Your task to perform on an android device: turn off javascript in the chrome app Image 0: 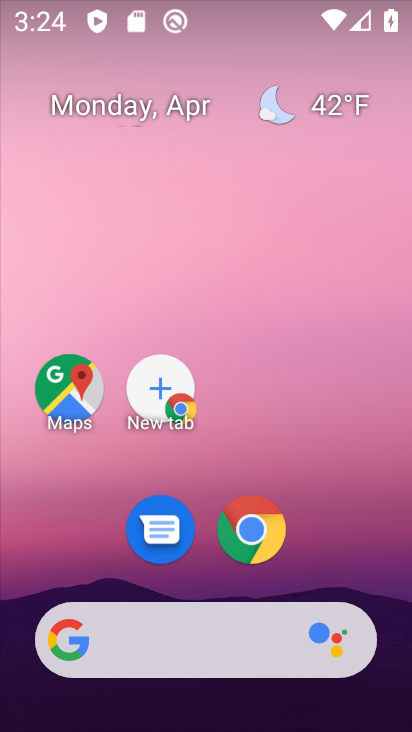
Step 0: click (264, 518)
Your task to perform on an android device: turn off javascript in the chrome app Image 1: 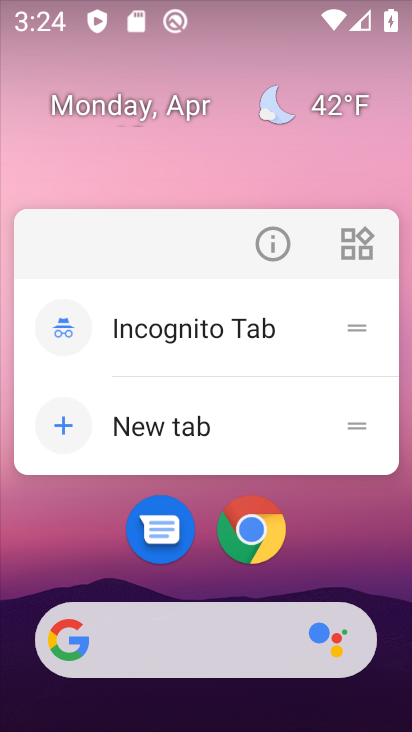
Step 1: click (261, 518)
Your task to perform on an android device: turn off javascript in the chrome app Image 2: 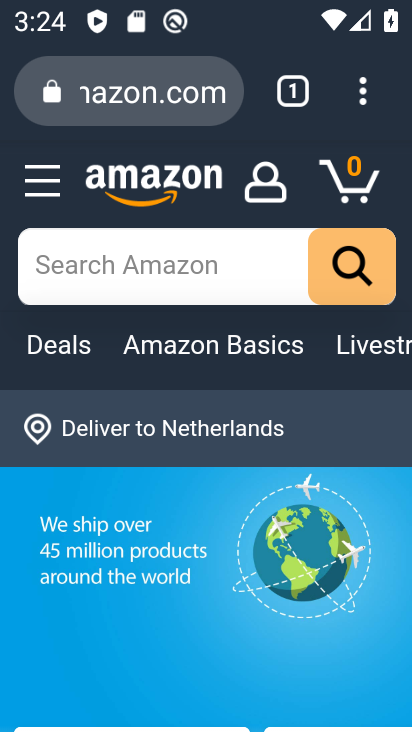
Step 2: click (361, 87)
Your task to perform on an android device: turn off javascript in the chrome app Image 3: 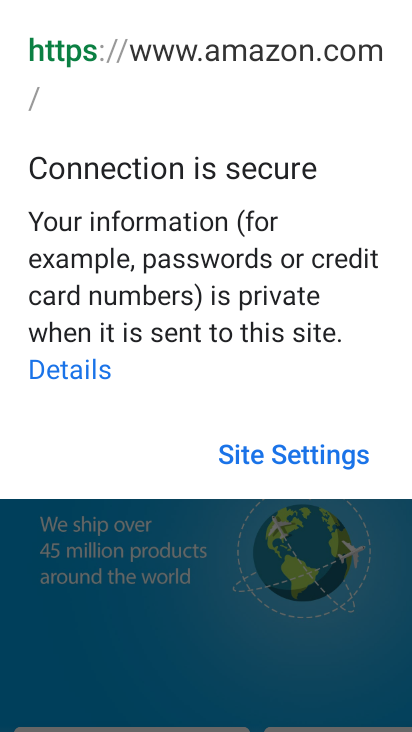
Step 3: click (153, 546)
Your task to perform on an android device: turn off javascript in the chrome app Image 4: 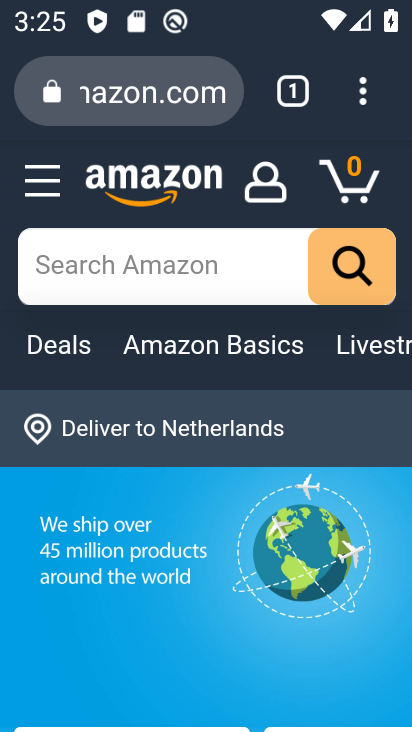
Step 4: click (353, 79)
Your task to perform on an android device: turn off javascript in the chrome app Image 5: 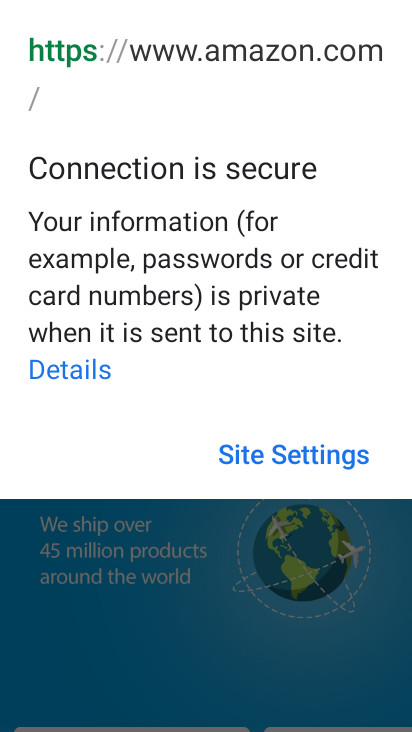
Step 5: click (162, 567)
Your task to perform on an android device: turn off javascript in the chrome app Image 6: 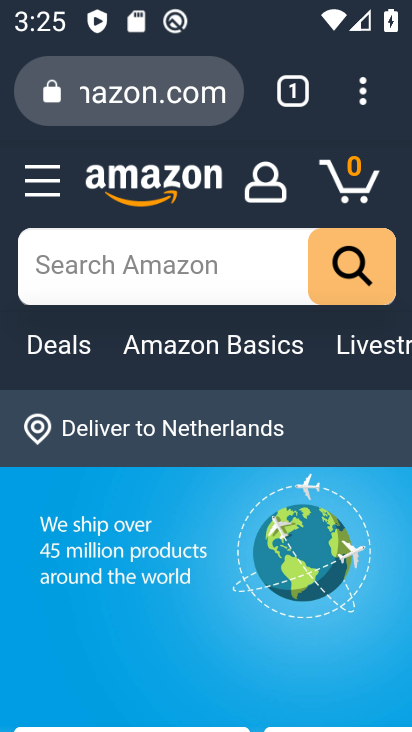
Step 6: click (366, 83)
Your task to perform on an android device: turn off javascript in the chrome app Image 7: 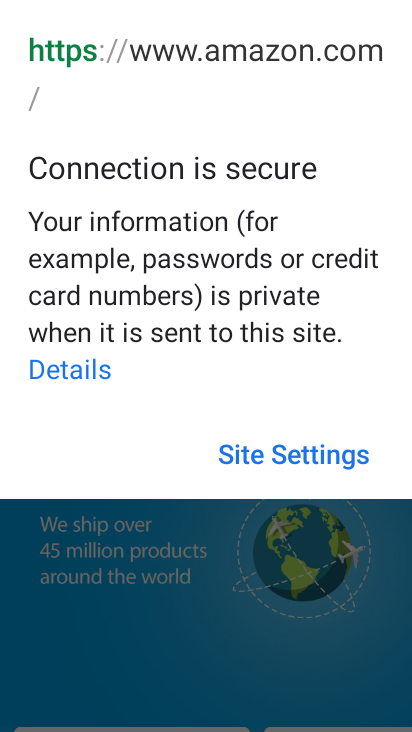
Step 7: click (188, 559)
Your task to perform on an android device: turn off javascript in the chrome app Image 8: 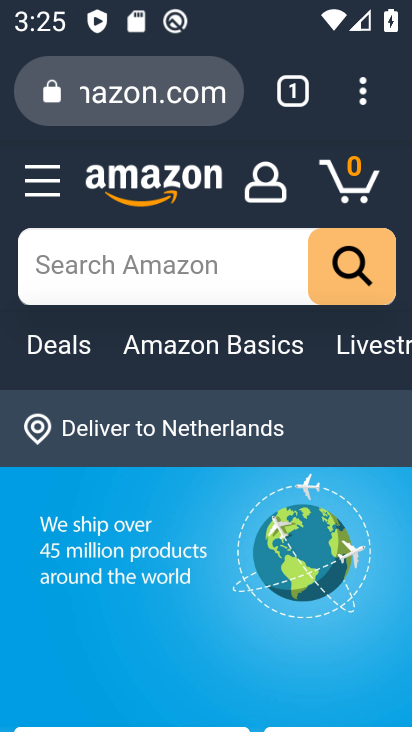
Step 8: drag from (362, 89) to (137, 544)
Your task to perform on an android device: turn off javascript in the chrome app Image 9: 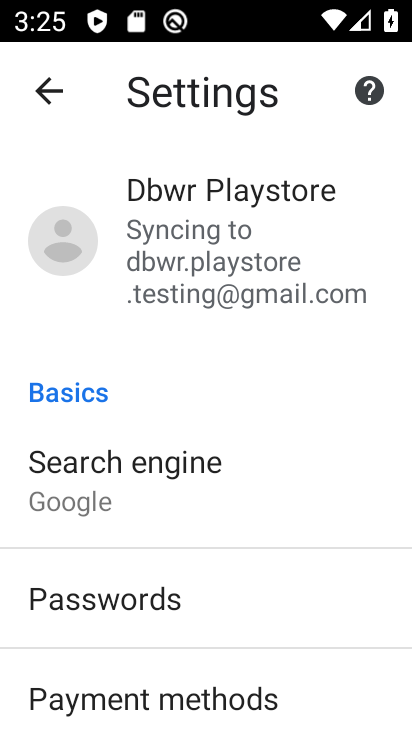
Step 9: drag from (110, 563) to (235, 140)
Your task to perform on an android device: turn off javascript in the chrome app Image 10: 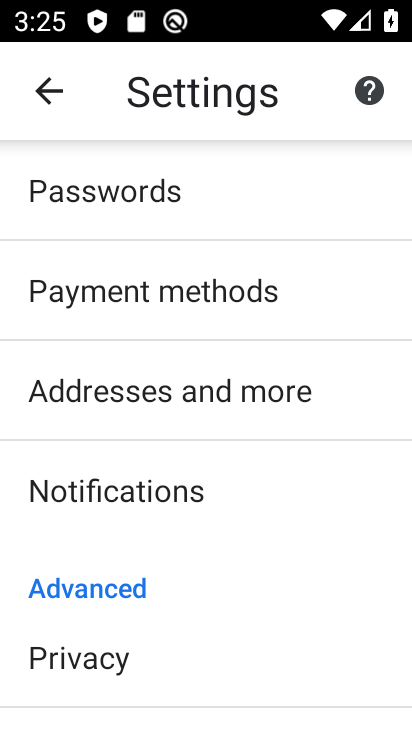
Step 10: drag from (149, 653) to (295, 162)
Your task to perform on an android device: turn off javascript in the chrome app Image 11: 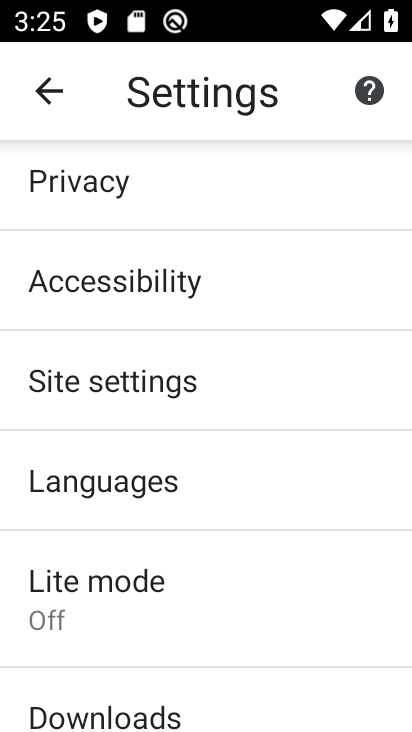
Step 11: click (102, 387)
Your task to perform on an android device: turn off javascript in the chrome app Image 12: 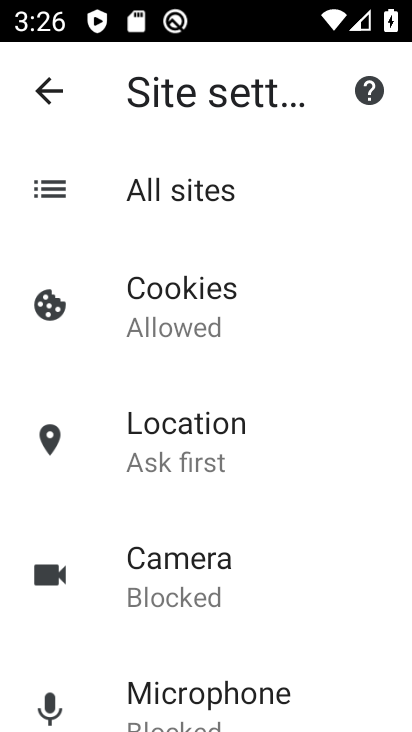
Step 12: drag from (187, 604) to (315, 224)
Your task to perform on an android device: turn off javascript in the chrome app Image 13: 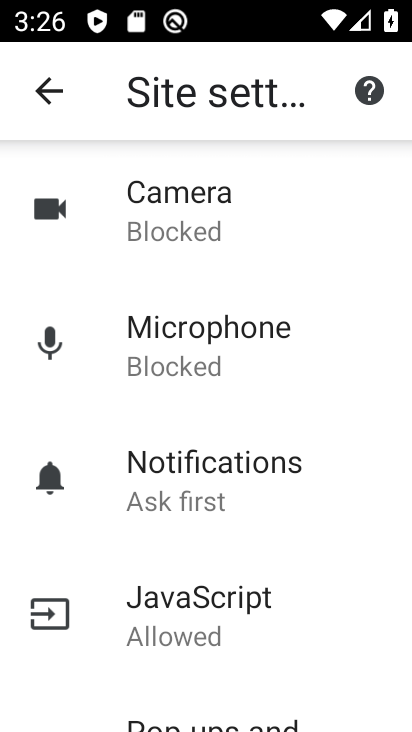
Step 13: click (200, 594)
Your task to perform on an android device: turn off javascript in the chrome app Image 14: 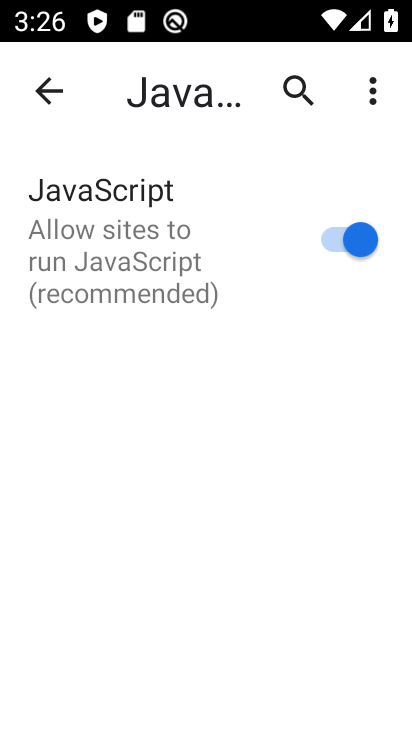
Step 14: click (345, 237)
Your task to perform on an android device: turn off javascript in the chrome app Image 15: 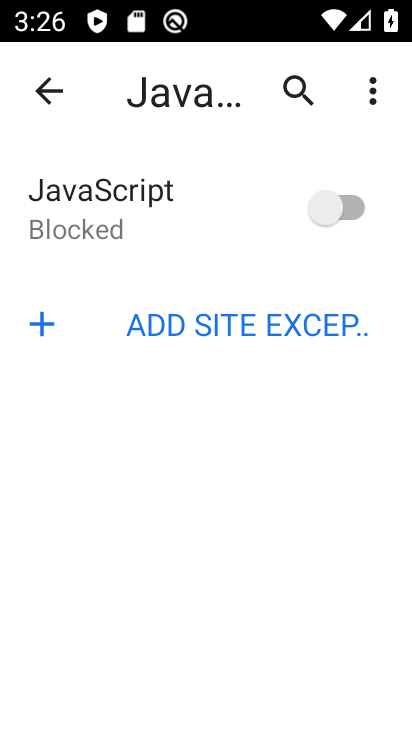
Step 15: task complete